Your task to perform on an android device: Turn on the flashlight Image 0: 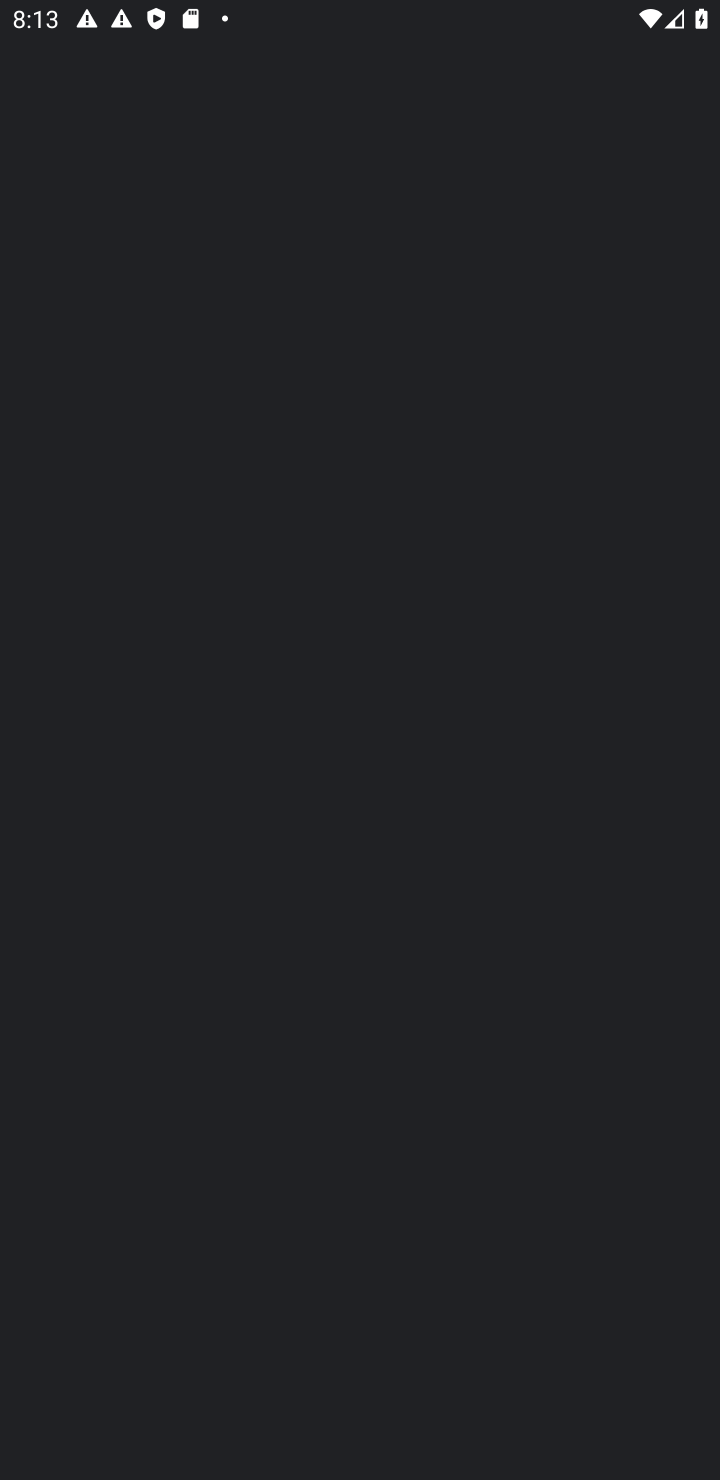
Step 0: press home button
Your task to perform on an android device: Turn on the flashlight Image 1: 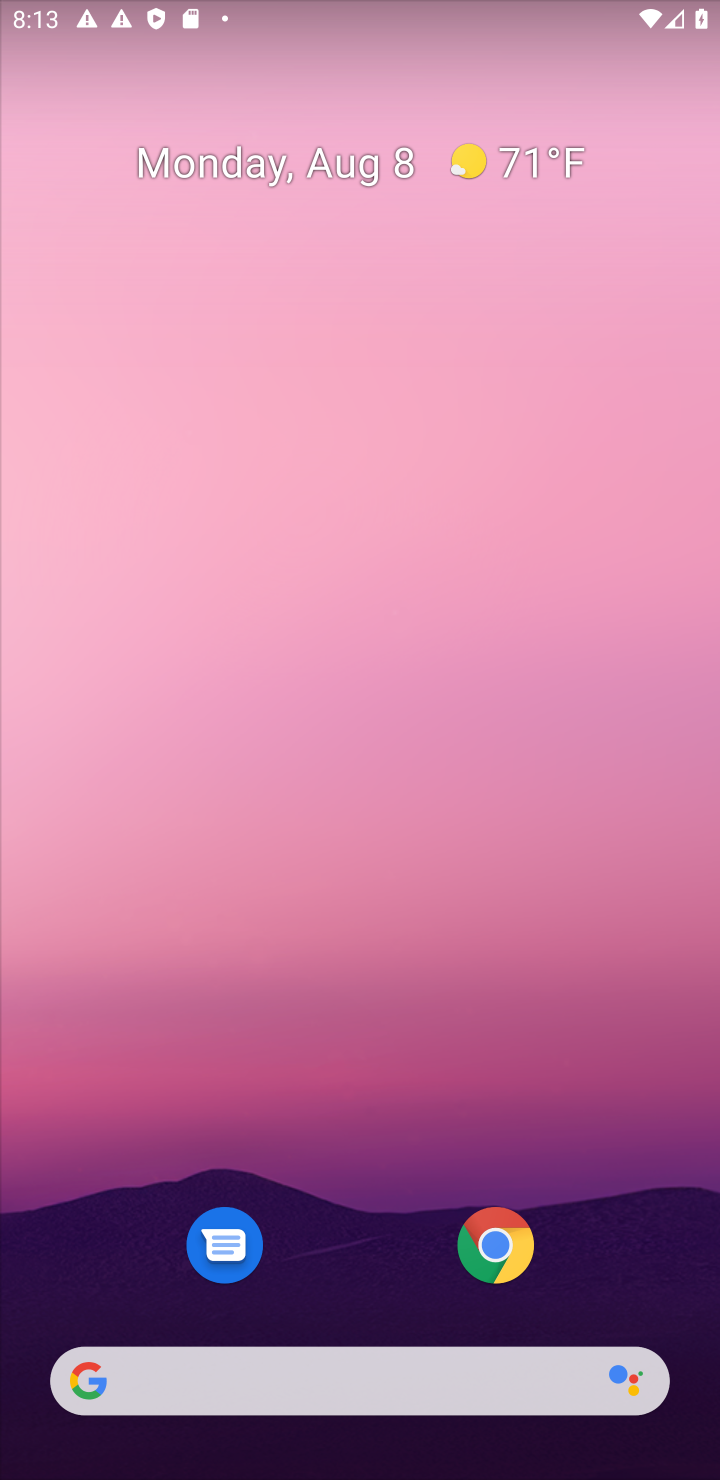
Step 1: drag from (352, 968) to (477, 8)
Your task to perform on an android device: Turn on the flashlight Image 2: 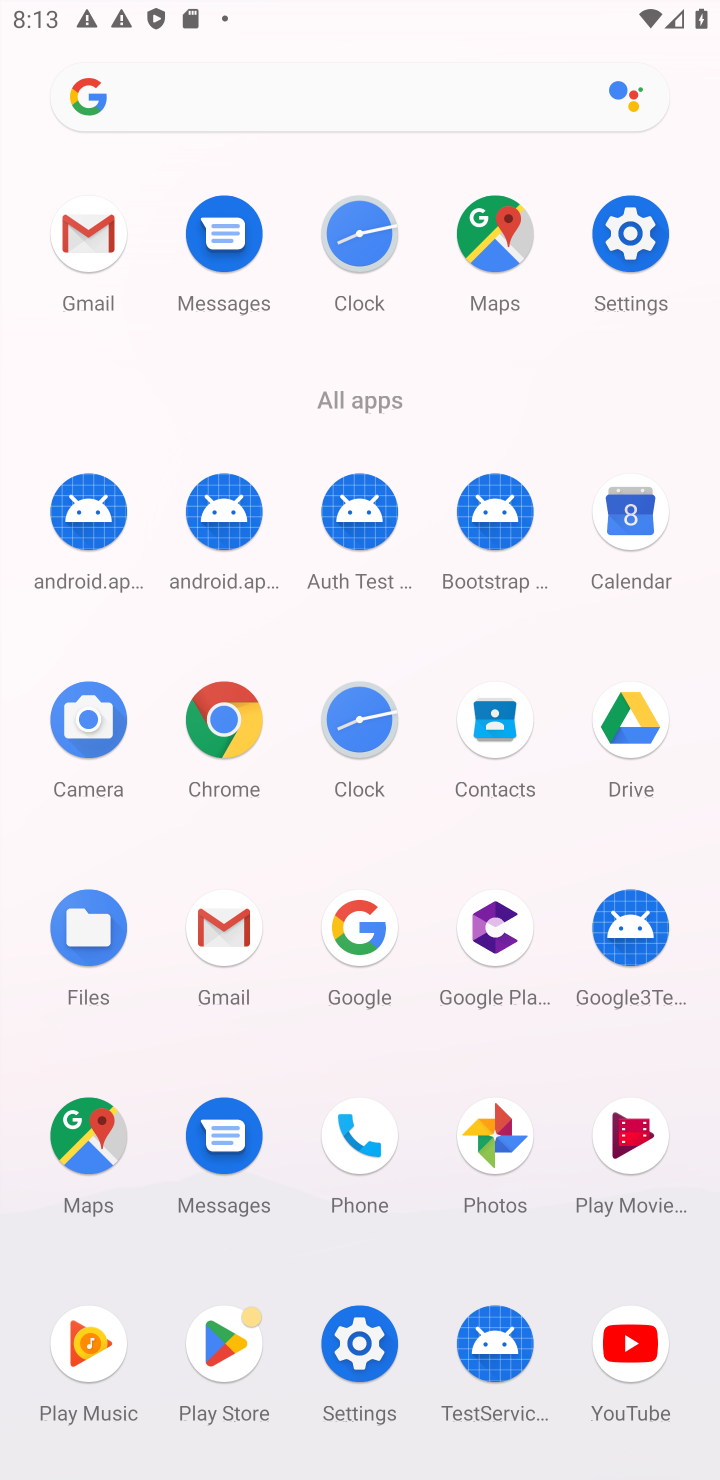
Step 2: click (624, 241)
Your task to perform on an android device: Turn on the flashlight Image 3: 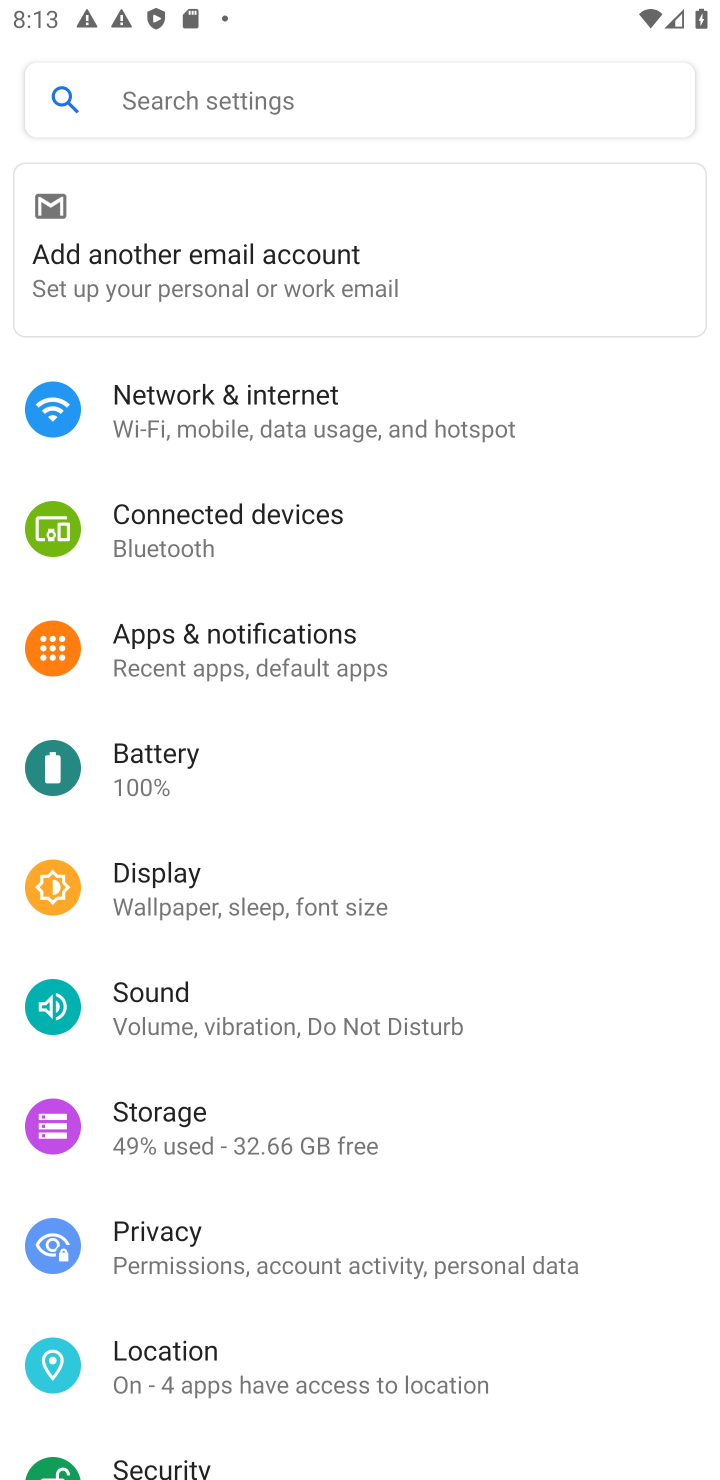
Step 3: click (355, 103)
Your task to perform on an android device: Turn on the flashlight Image 4: 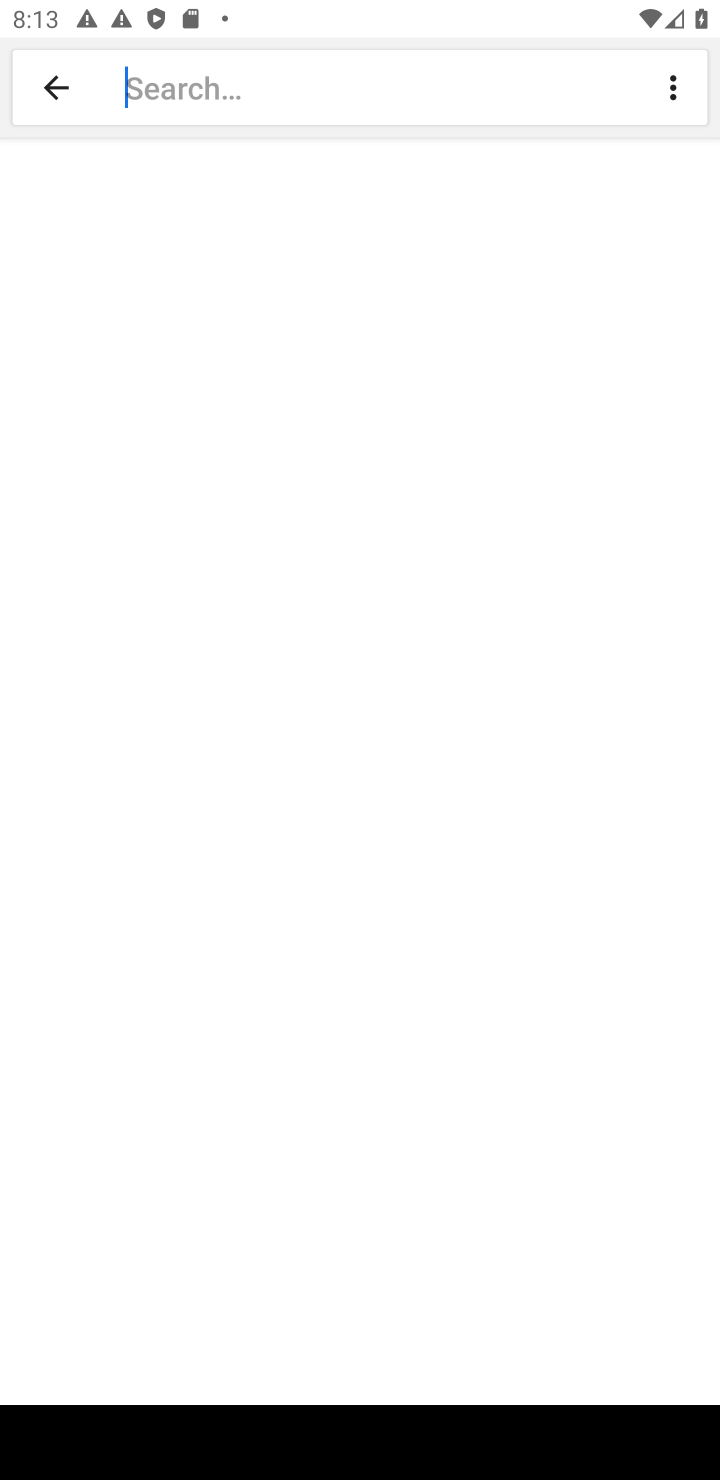
Step 4: type "flashlight"
Your task to perform on an android device: Turn on the flashlight Image 5: 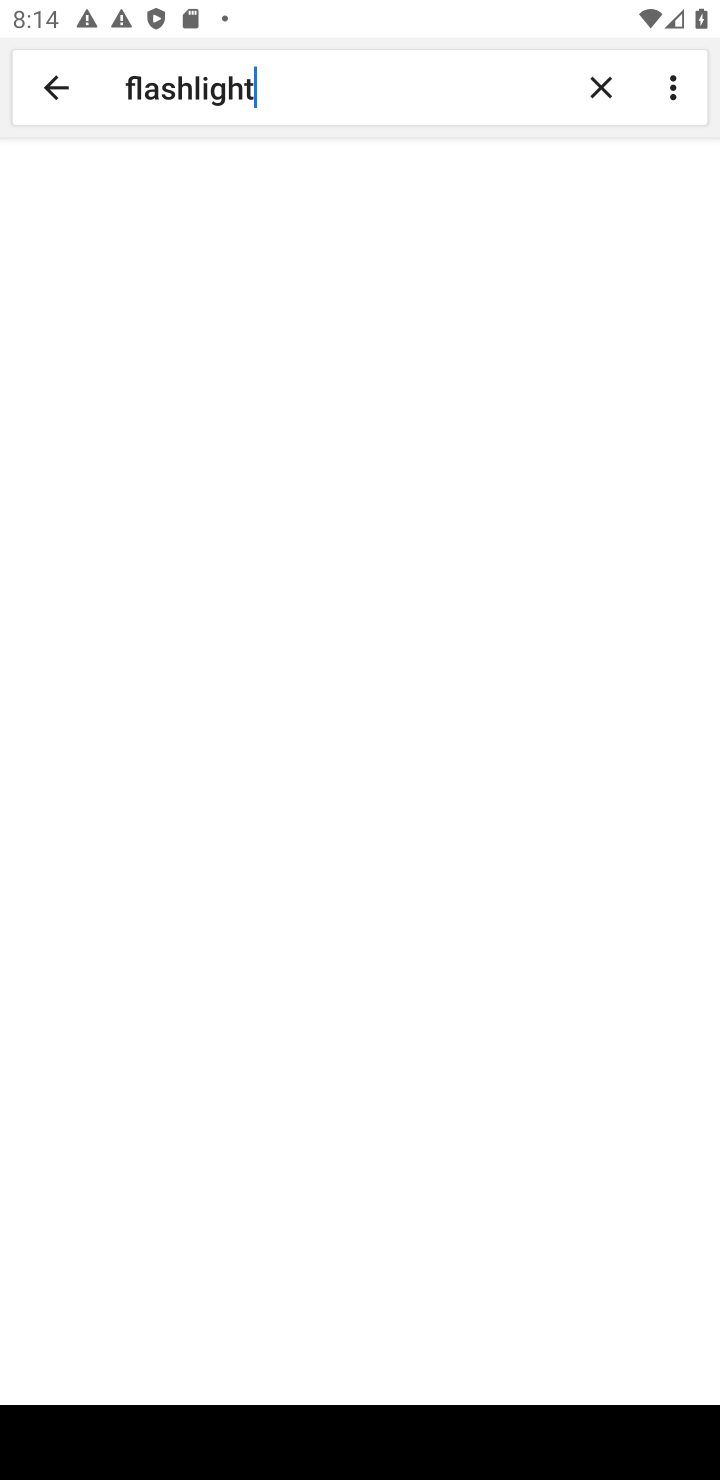
Step 5: click (201, 229)
Your task to perform on an android device: Turn on the flashlight Image 6: 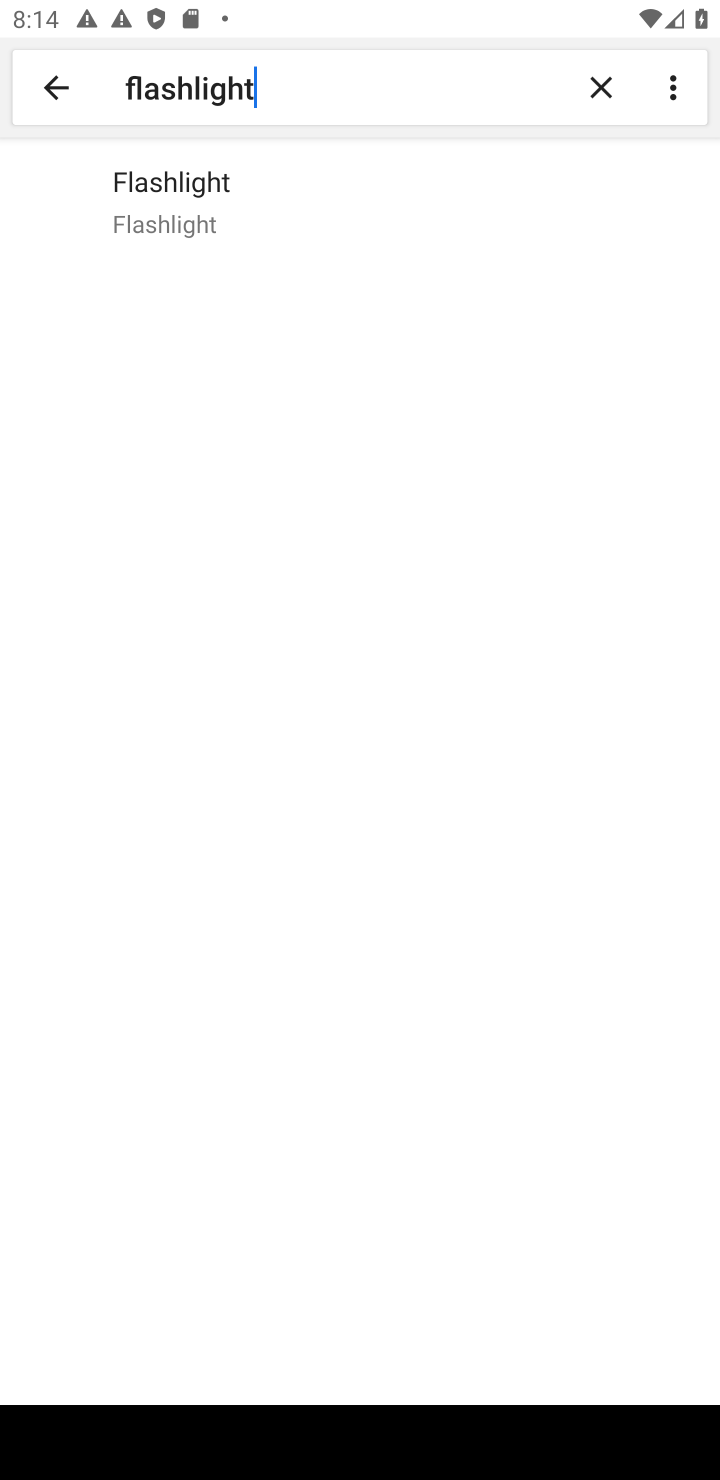
Step 6: click (199, 227)
Your task to perform on an android device: Turn on the flashlight Image 7: 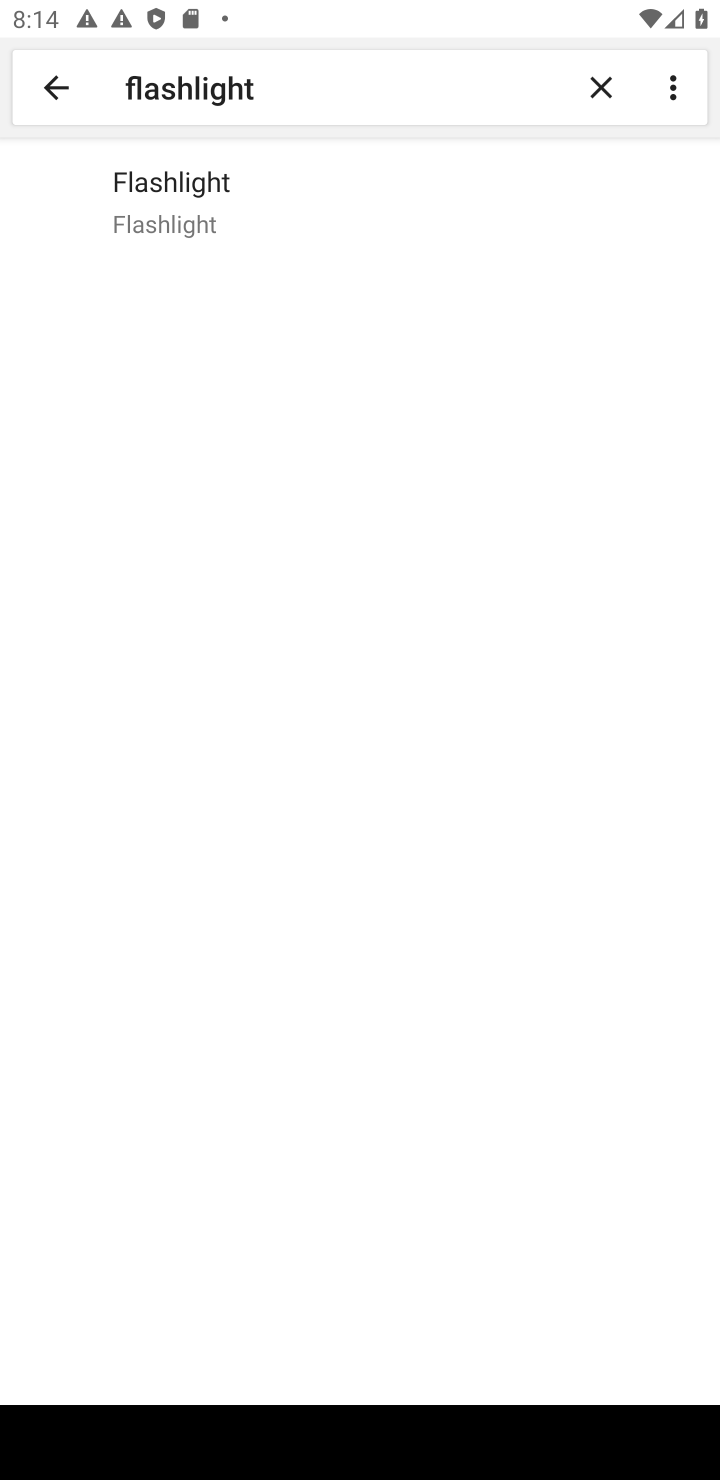
Step 7: click (187, 191)
Your task to perform on an android device: Turn on the flashlight Image 8: 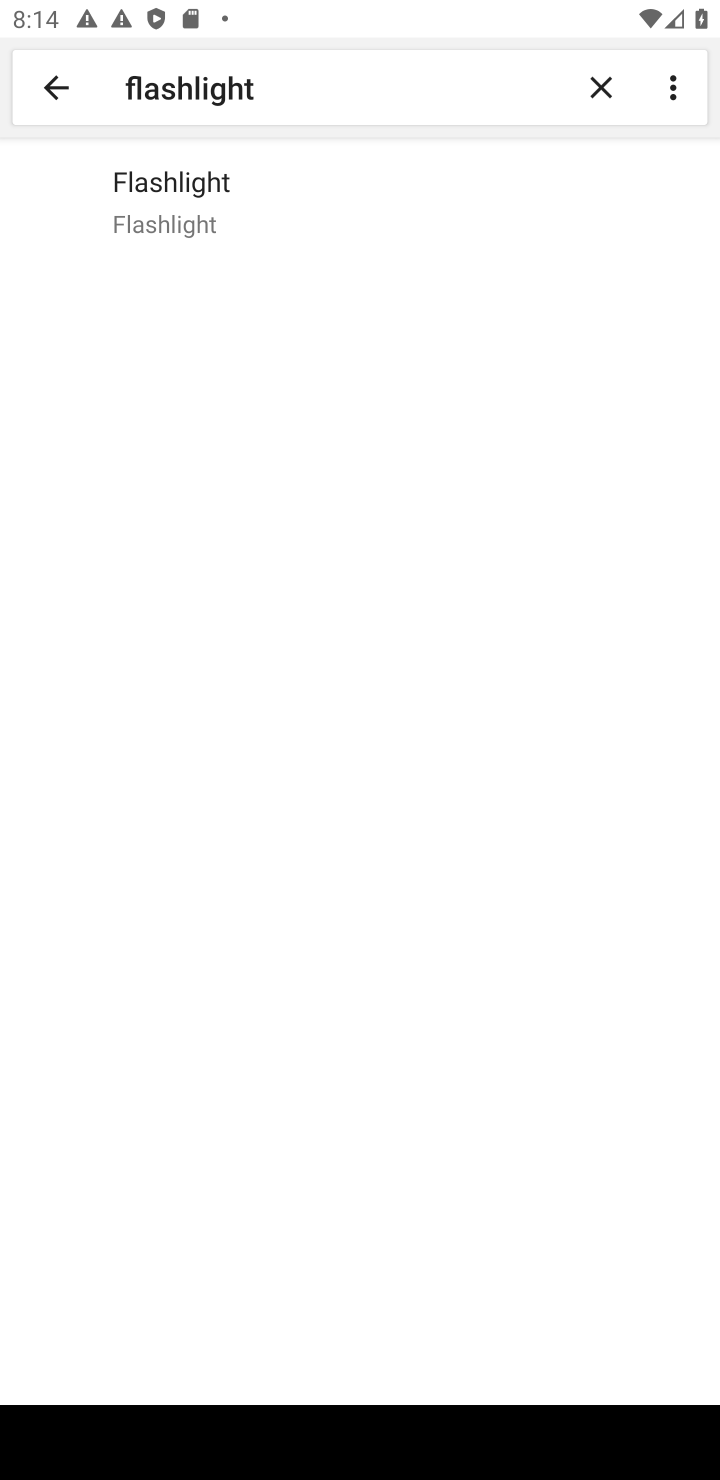
Step 8: task complete